Your task to perform on an android device: Open the map Image 0: 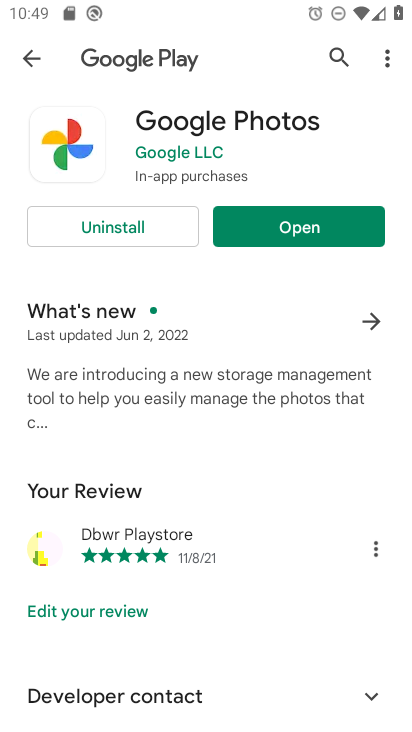
Step 0: press home button
Your task to perform on an android device: Open the map Image 1: 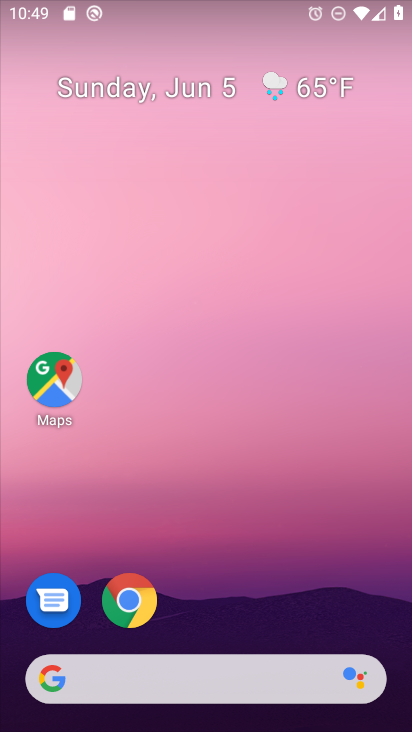
Step 1: drag from (384, 625) to (269, 134)
Your task to perform on an android device: Open the map Image 2: 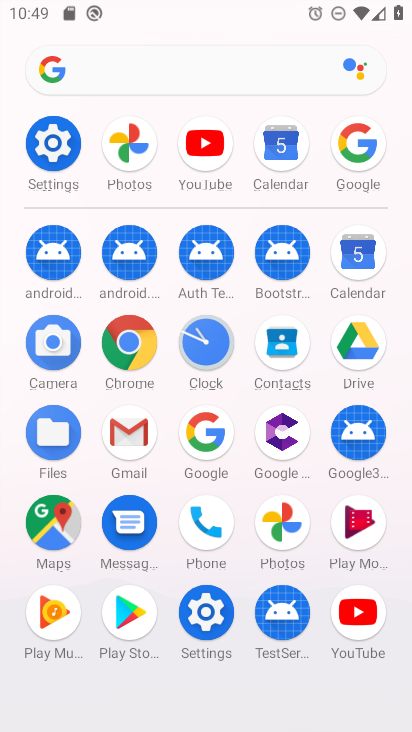
Step 2: click (60, 538)
Your task to perform on an android device: Open the map Image 3: 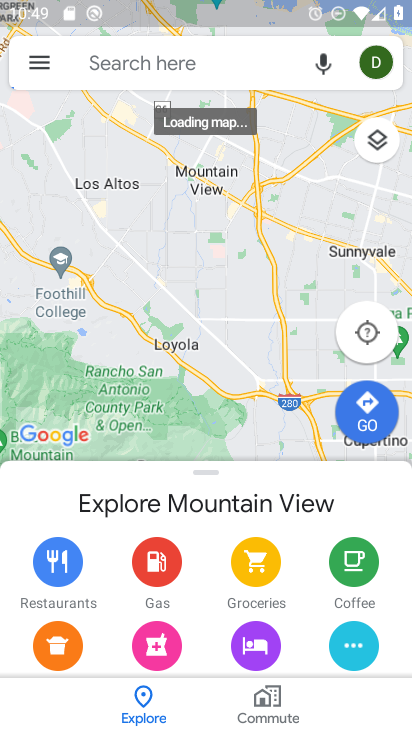
Step 3: task complete